Your task to perform on an android device: check battery use Image 0: 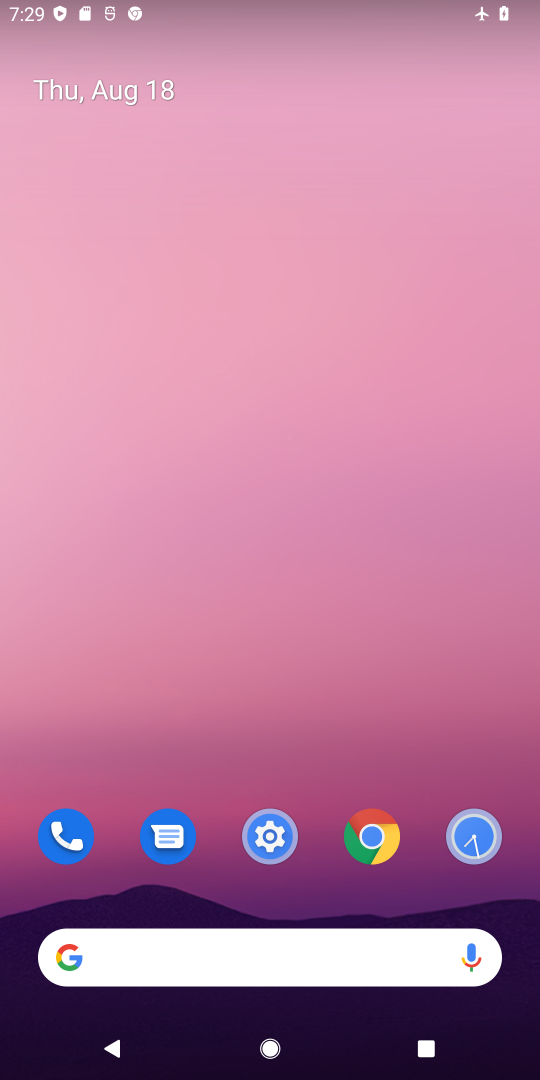
Step 0: drag from (319, 781) to (407, 8)
Your task to perform on an android device: check battery use Image 1: 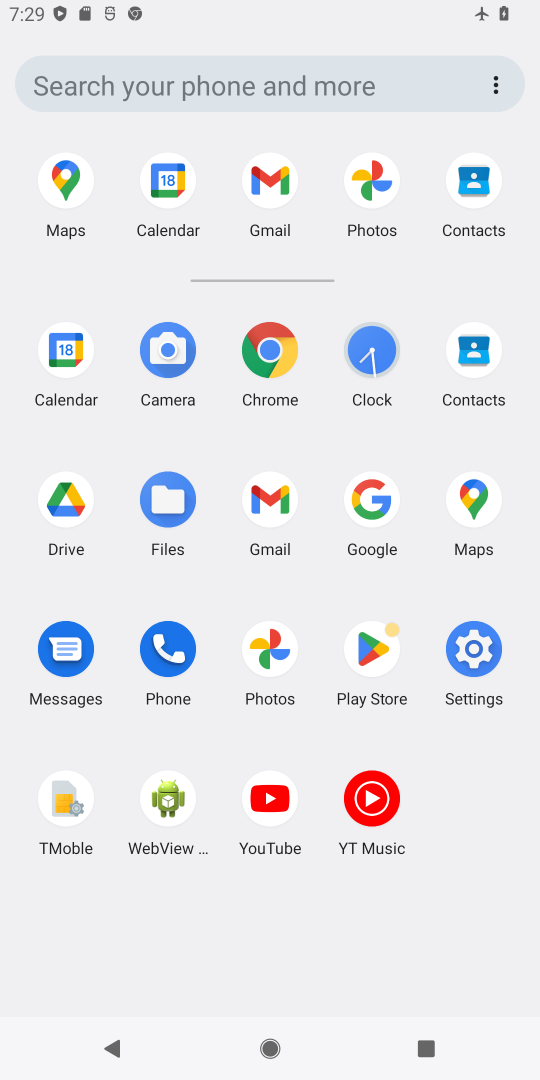
Step 1: click (482, 652)
Your task to perform on an android device: check battery use Image 2: 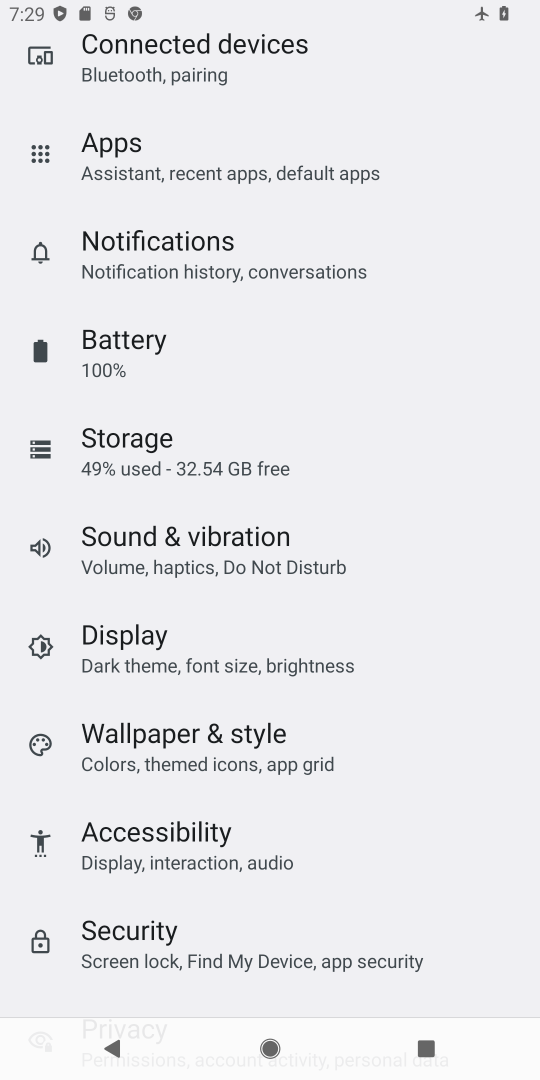
Step 2: click (152, 365)
Your task to perform on an android device: check battery use Image 3: 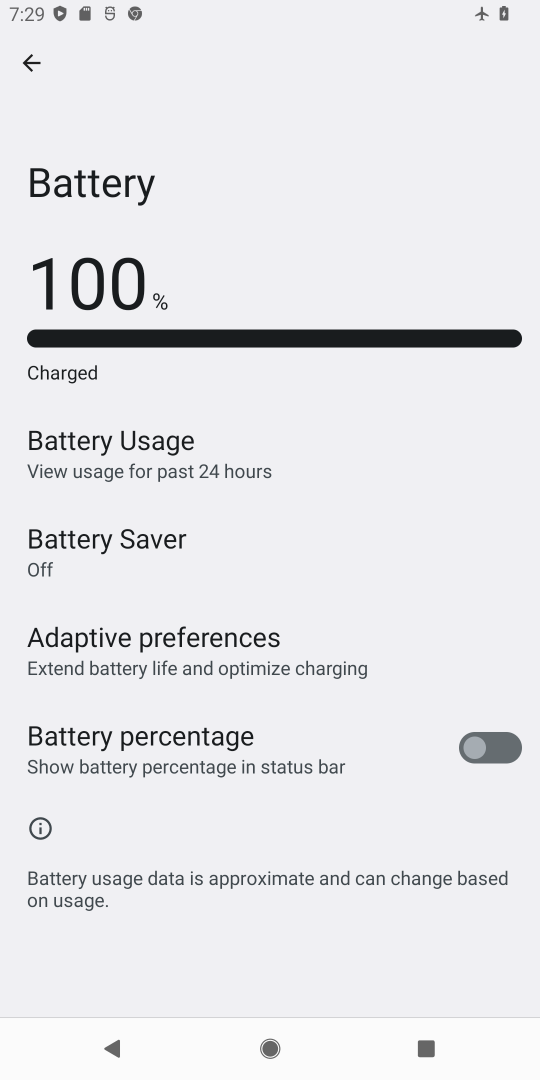
Step 3: click (235, 478)
Your task to perform on an android device: check battery use Image 4: 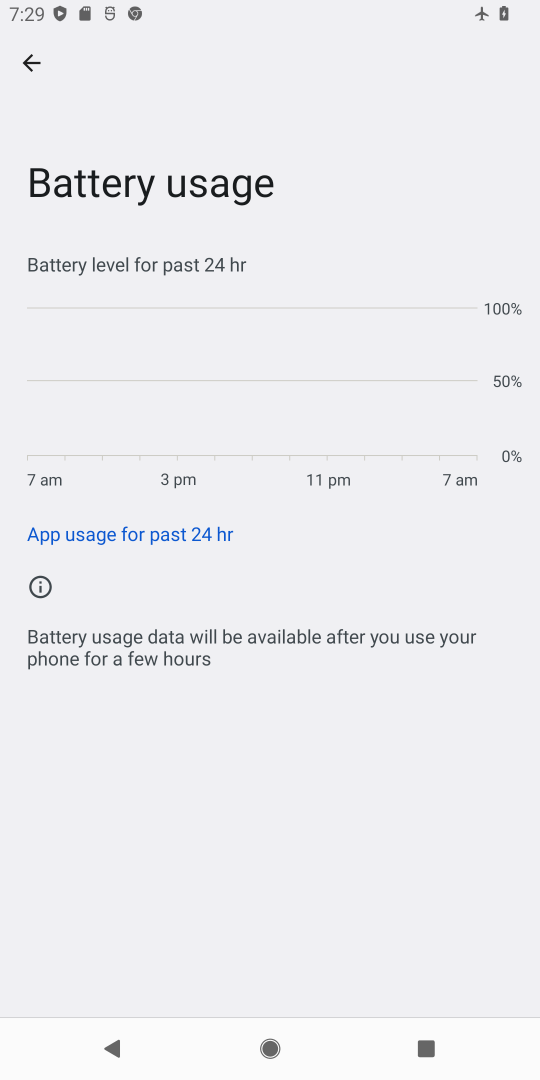
Step 4: task complete